Your task to perform on an android device: Go to Wikipedia Image 0: 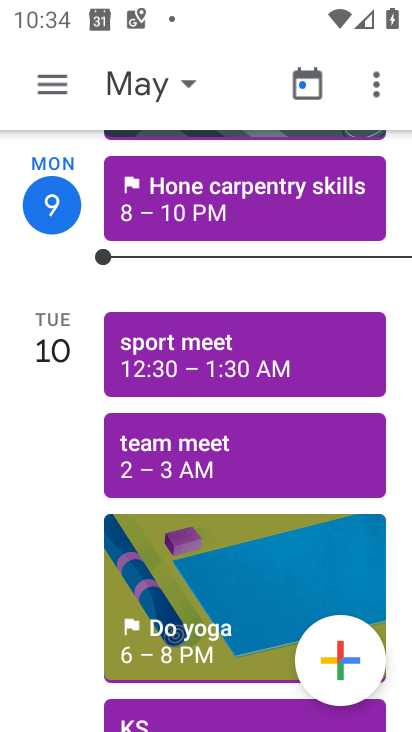
Step 0: press home button
Your task to perform on an android device: Go to Wikipedia Image 1: 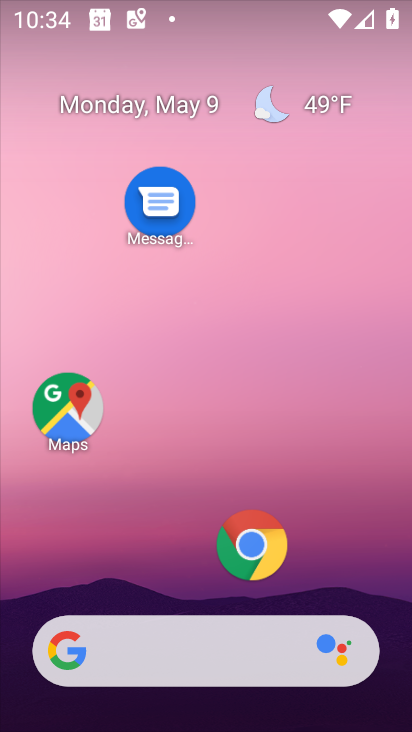
Step 1: click (250, 546)
Your task to perform on an android device: Go to Wikipedia Image 2: 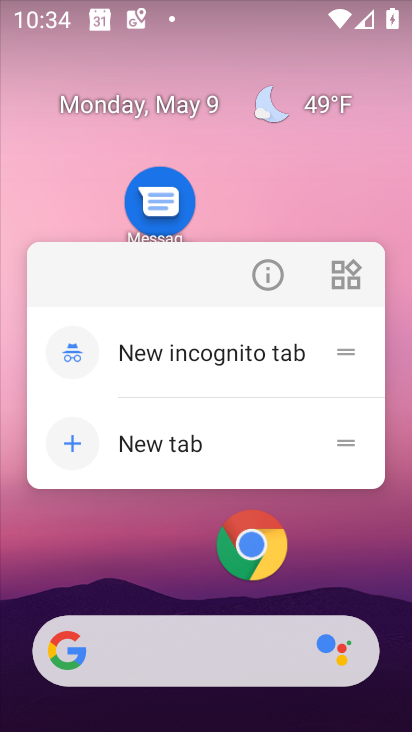
Step 2: click (250, 546)
Your task to perform on an android device: Go to Wikipedia Image 3: 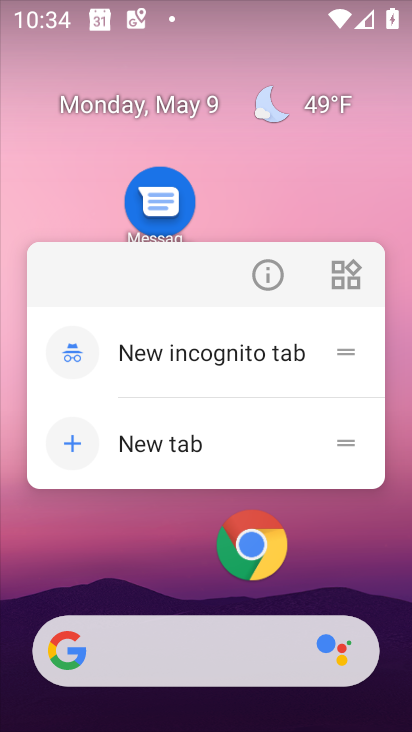
Step 3: click (256, 554)
Your task to perform on an android device: Go to Wikipedia Image 4: 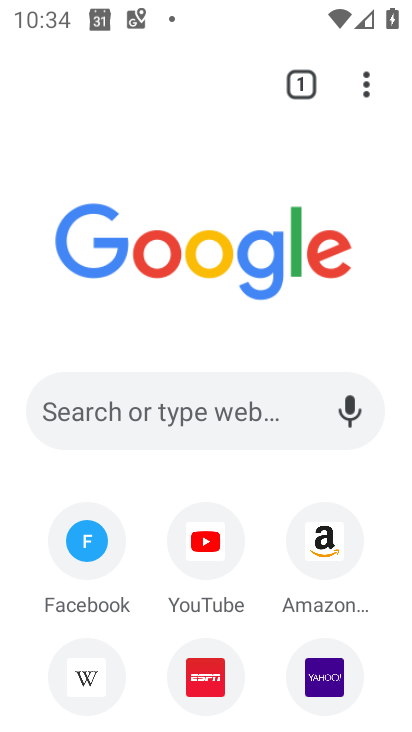
Step 4: click (95, 668)
Your task to perform on an android device: Go to Wikipedia Image 5: 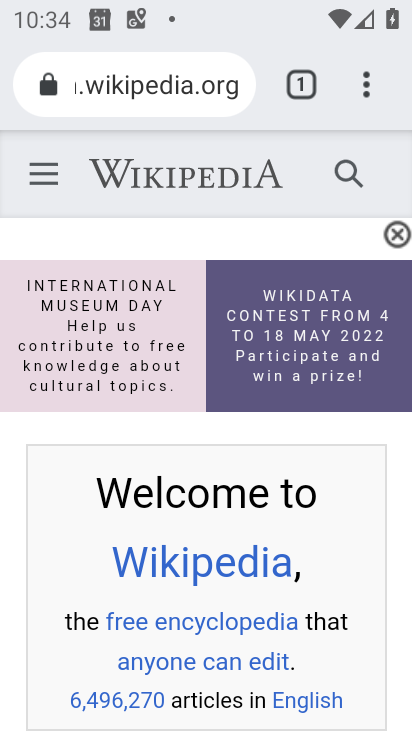
Step 5: task complete